Your task to perform on an android device: open wifi settings Image 0: 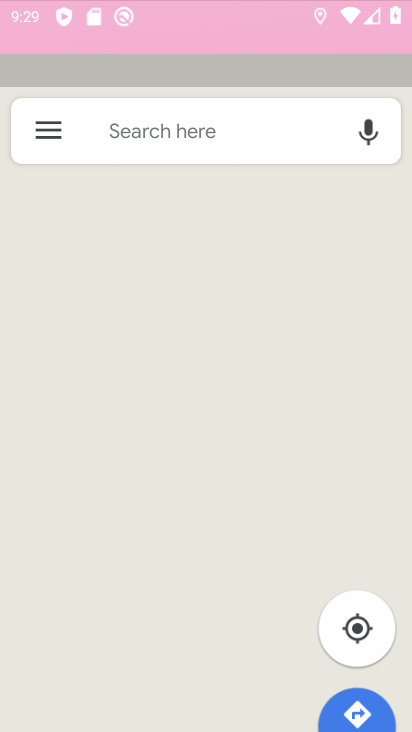
Step 0: drag from (267, 8) to (301, 4)
Your task to perform on an android device: open wifi settings Image 1: 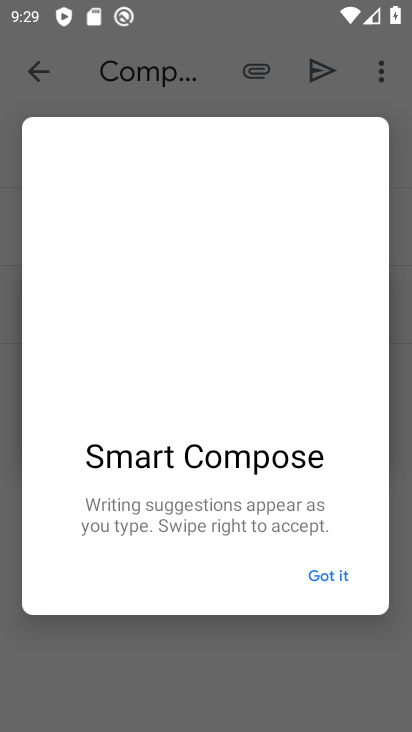
Step 1: press home button
Your task to perform on an android device: open wifi settings Image 2: 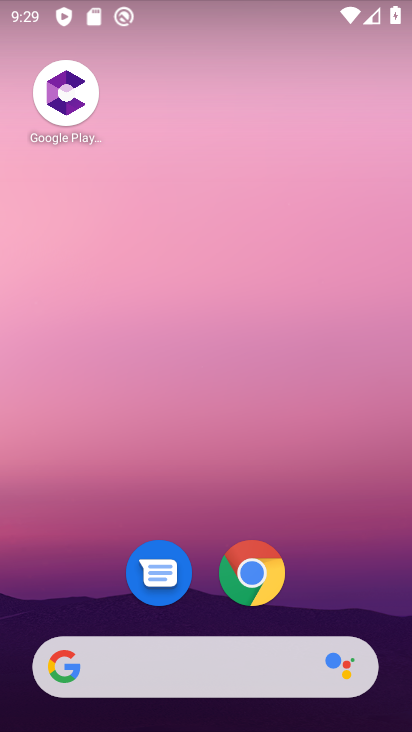
Step 2: drag from (355, 625) to (344, 167)
Your task to perform on an android device: open wifi settings Image 3: 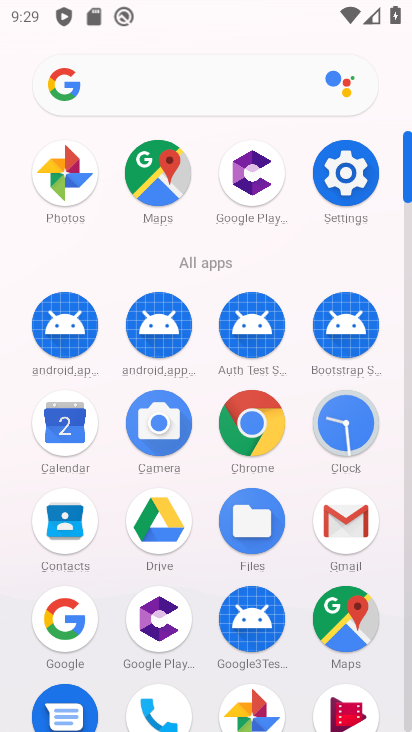
Step 3: click (349, 190)
Your task to perform on an android device: open wifi settings Image 4: 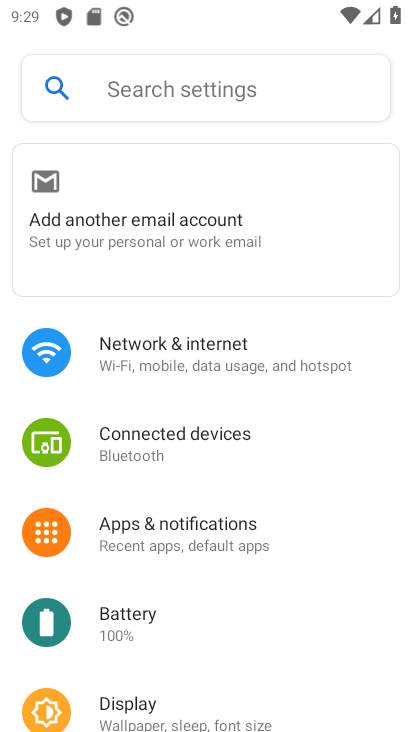
Step 4: click (298, 359)
Your task to perform on an android device: open wifi settings Image 5: 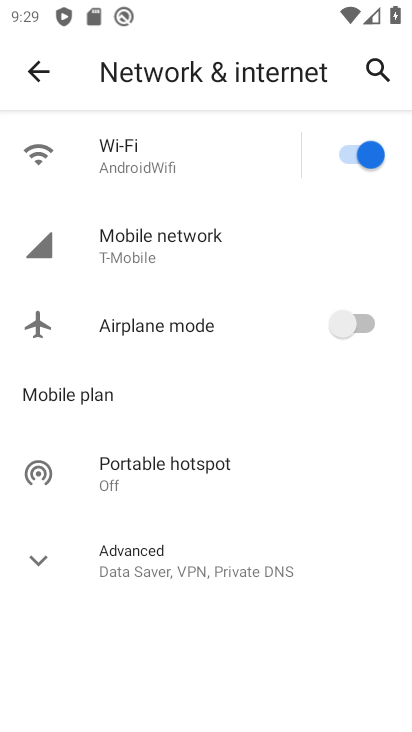
Step 5: click (255, 148)
Your task to perform on an android device: open wifi settings Image 6: 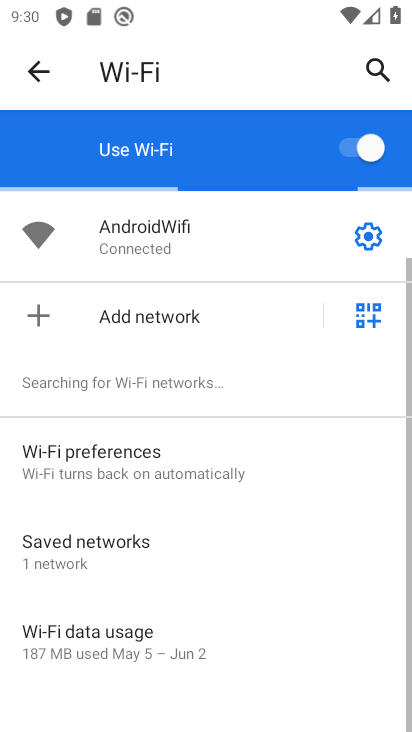
Step 6: task complete